Your task to perform on an android device: check data usage Image 0: 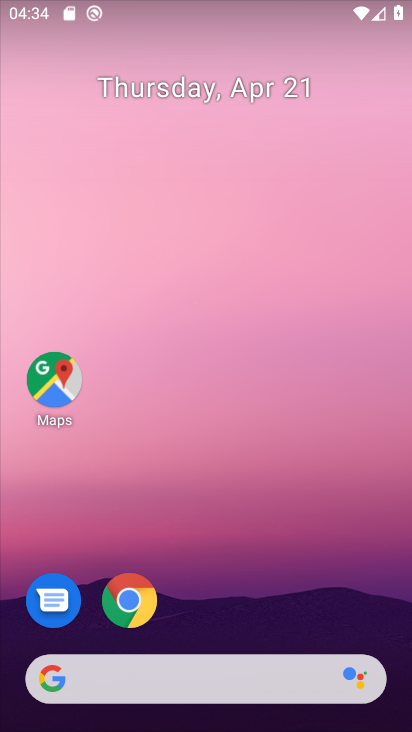
Step 0: drag from (370, 511) to (370, 22)
Your task to perform on an android device: check data usage Image 1: 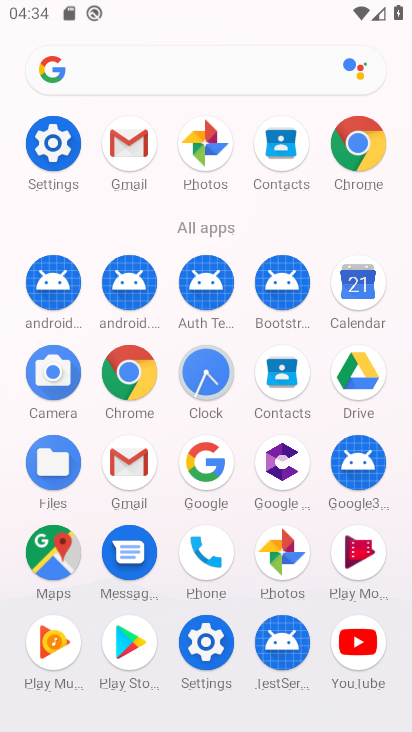
Step 1: click (54, 146)
Your task to perform on an android device: check data usage Image 2: 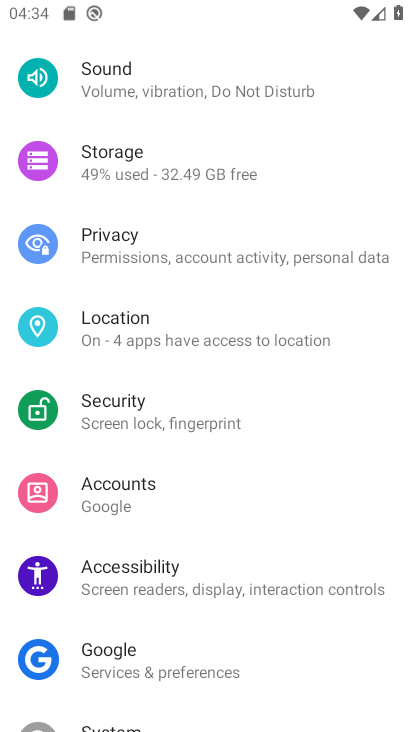
Step 2: drag from (354, 117) to (387, 584)
Your task to perform on an android device: check data usage Image 3: 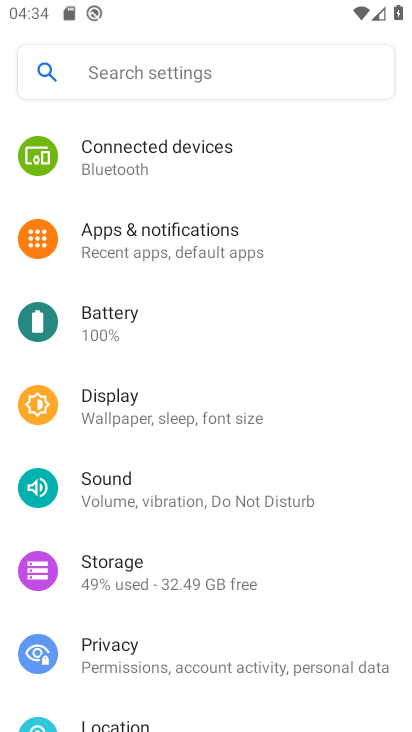
Step 3: drag from (346, 191) to (352, 573)
Your task to perform on an android device: check data usage Image 4: 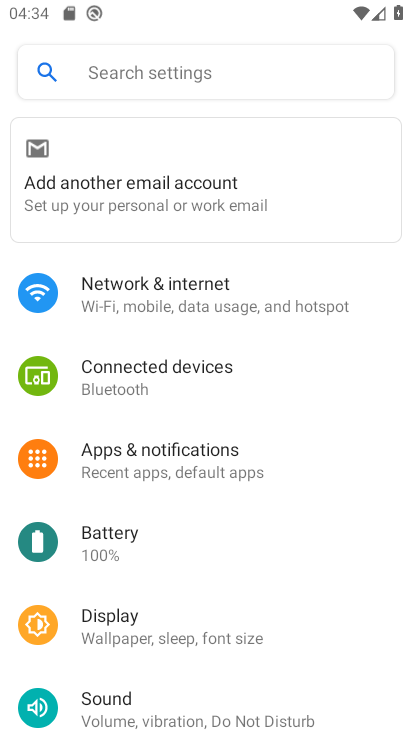
Step 4: click (176, 306)
Your task to perform on an android device: check data usage Image 5: 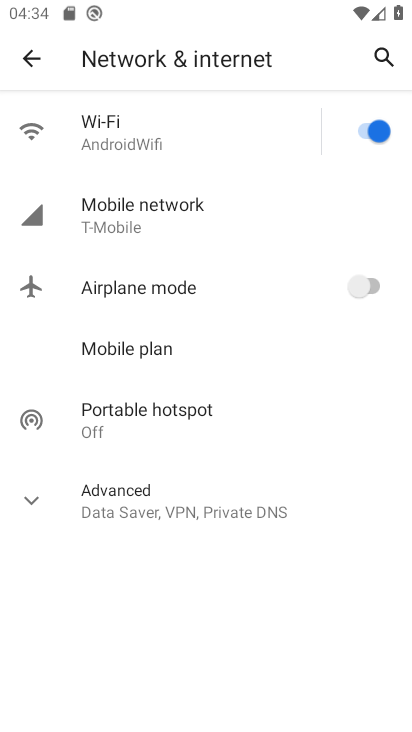
Step 5: click (95, 213)
Your task to perform on an android device: check data usage Image 6: 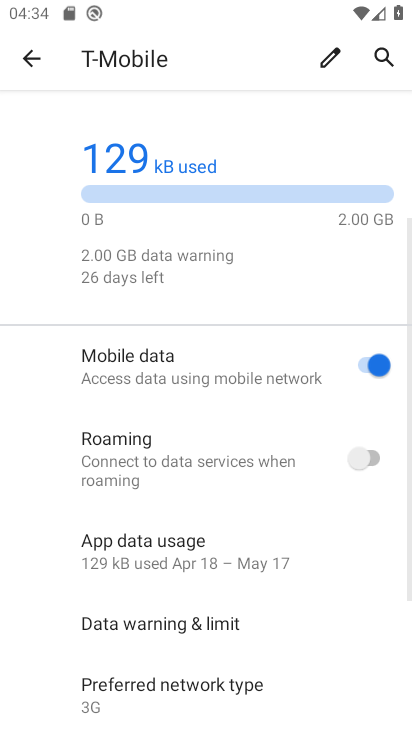
Step 6: click (101, 564)
Your task to perform on an android device: check data usage Image 7: 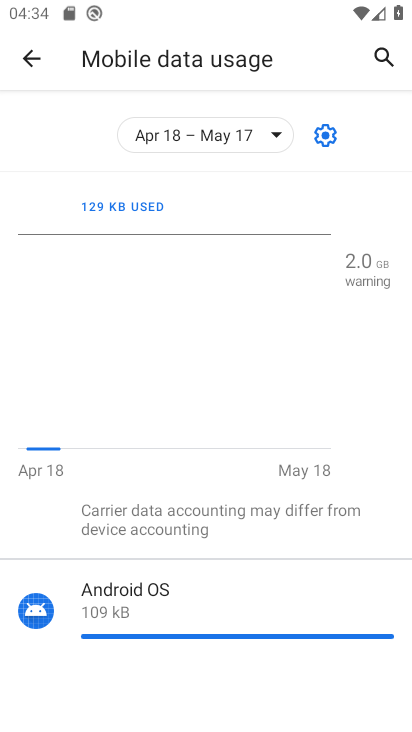
Step 7: task complete